Your task to perform on an android device: check out phone information Image 0: 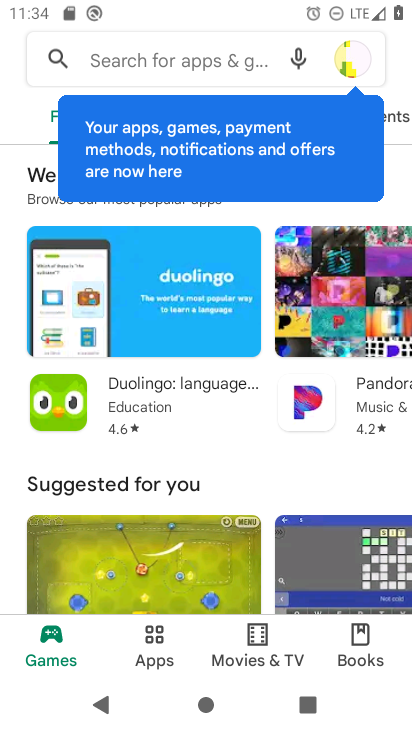
Step 0: press home button
Your task to perform on an android device: check out phone information Image 1: 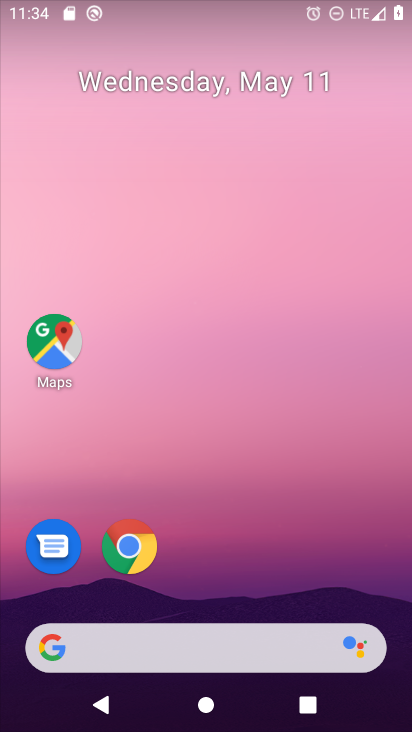
Step 1: drag from (385, 633) to (304, 34)
Your task to perform on an android device: check out phone information Image 2: 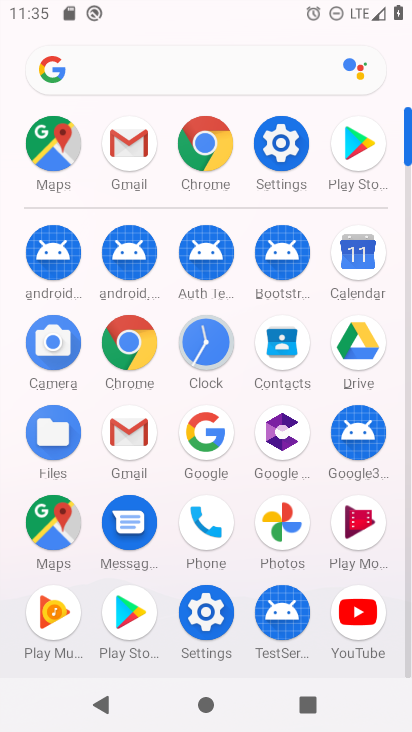
Step 2: click (204, 615)
Your task to perform on an android device: check out phone information Image 3: 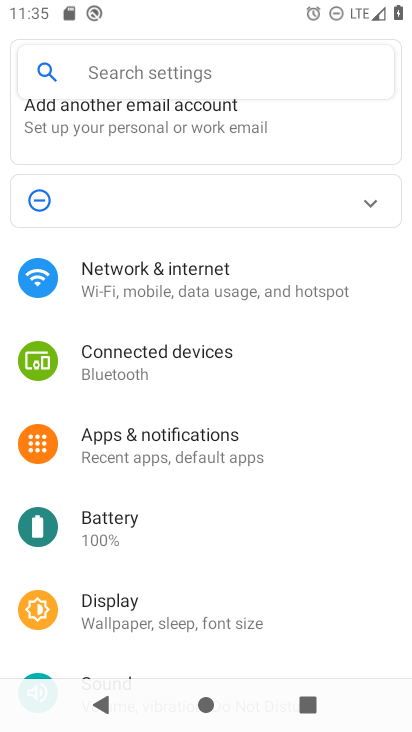
Step 3: drag from (204, 615) to (204, 3)
Your task to perform on an android device: check out phone information Image 4: 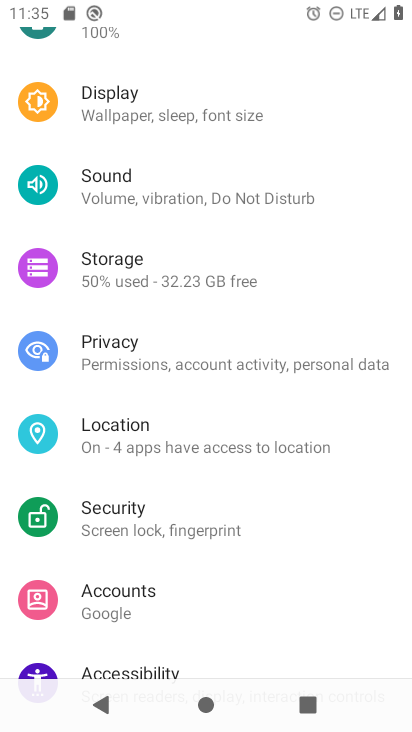
Step 4: drag from (226, 613) to (234, 14)
Your task to perform on an android device: check out phone information Image 5: 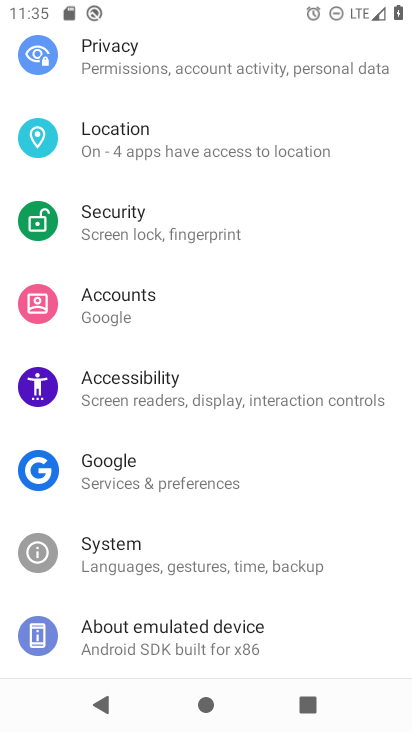
Step 5: click (233, 629)
Your task to perform on an android device: check out phone information Image 6: 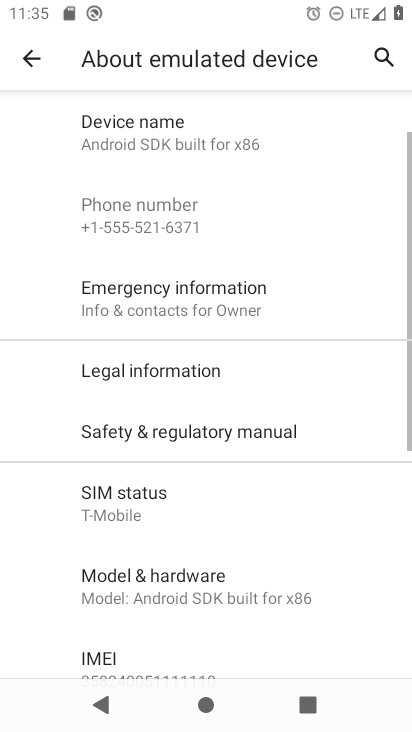
Step 6: task complete